Your task to perform on an android device: turn off location history Image 0: 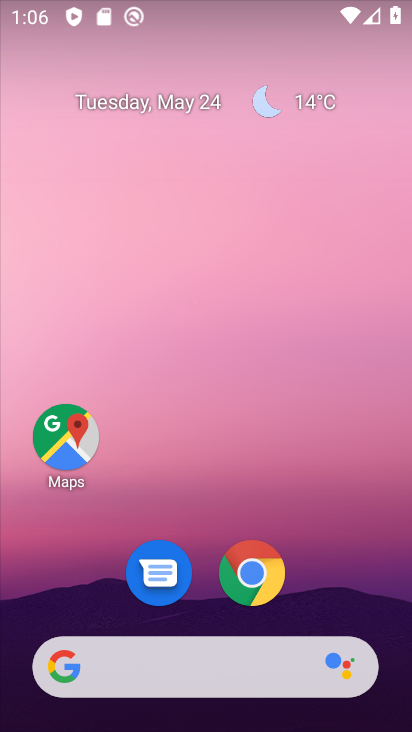
Step 0: drag from (376, 584) to (351, 0)
Your task to perform on an android device: turn off location history Image 1: 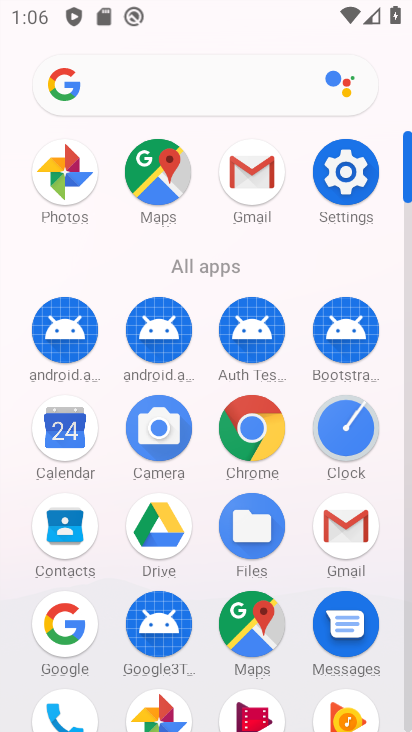
Step 1: click (369, 165)
Your task to perform on an android device: turn off location history Image 2: 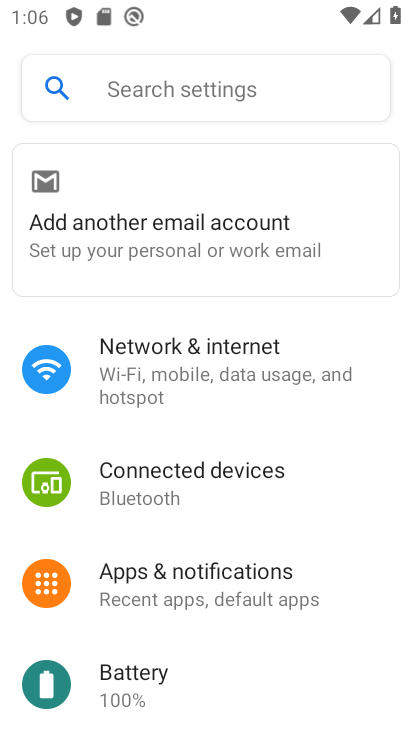
Step 2: drag from (226, 591) to (244, 186)
Your task to perform on an android device: turn off location history Image 3: 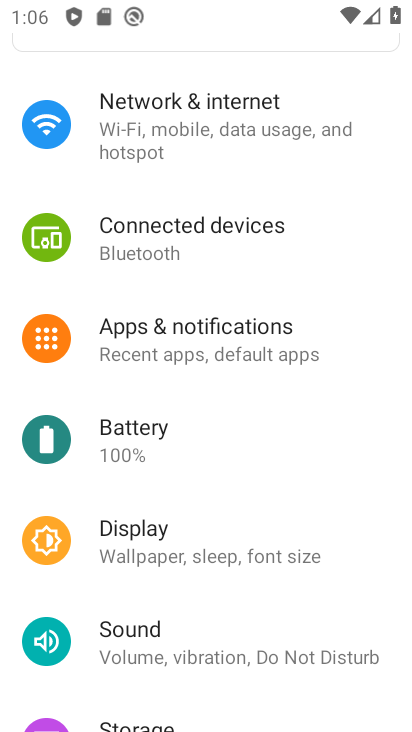
Step 3: drag from (223, 619) to (244, 37)
Your task to perform on an android device: turn off location history Image 4: 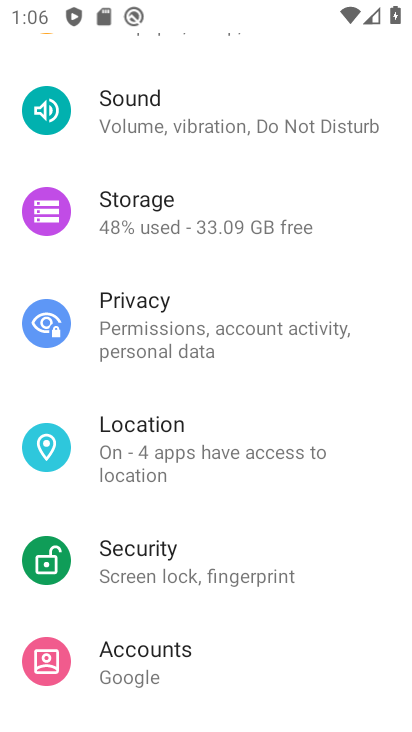
Step 4: click (205, 455)
Your task to perform on an android device: turn off location history Image 5: 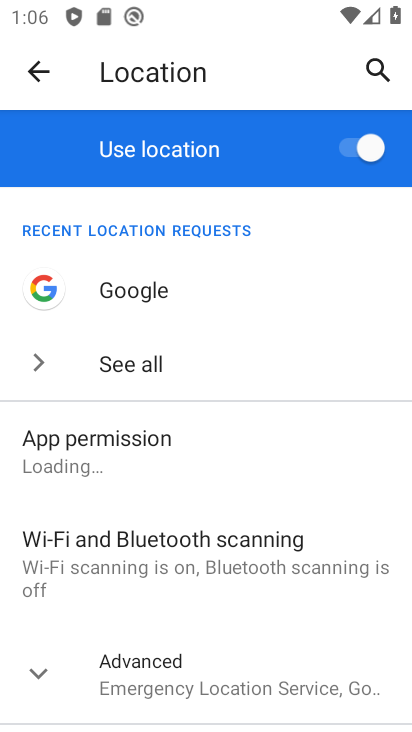
Step 5: drag from (219, 653) to (191, 150)
Your task to perform on an android device: turn off location history Image 6: 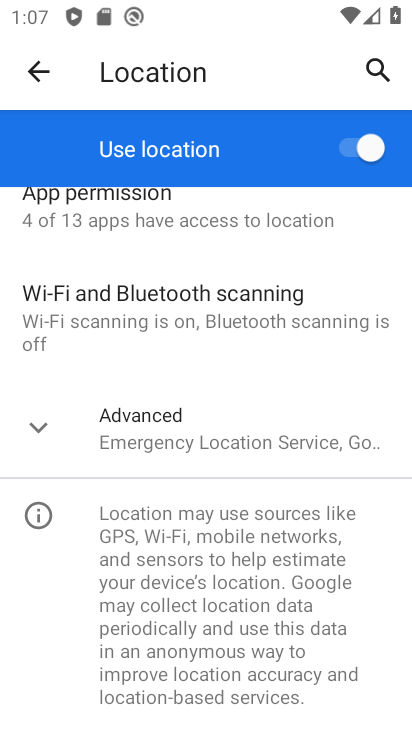
Step 6: drag from (285, 302) to (300, 623)
Your task to perform on an android device: turn off location history Image 7: 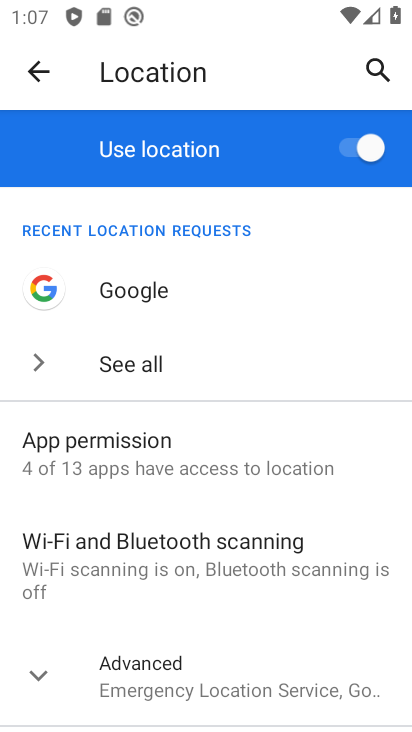
Step 7: click (183, 677)
Your task to perform on an android device: turn off location history Image 8: 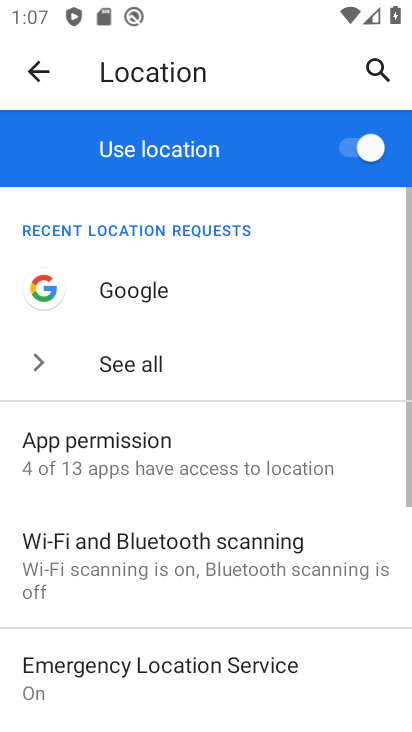
Step 8: drag from (245, 638) to (249, 237)
Your task to perform on an android device: turn off location history Image 9: 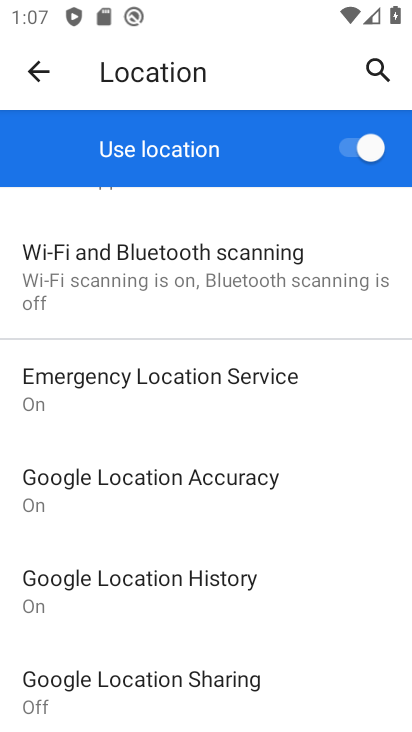
Step 9: click (182, 576)
Your task to perform on an android device: turn off location history Image 10: 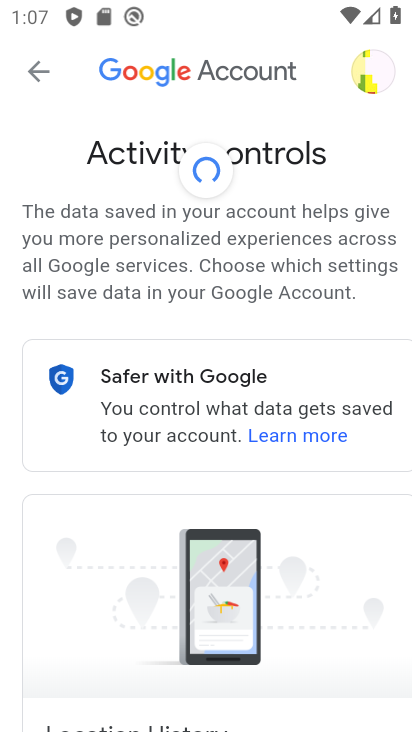
Step 10: drag from (201, 615) to (280, 80)
Your task to perform on an android device: turn off location history Image 11: 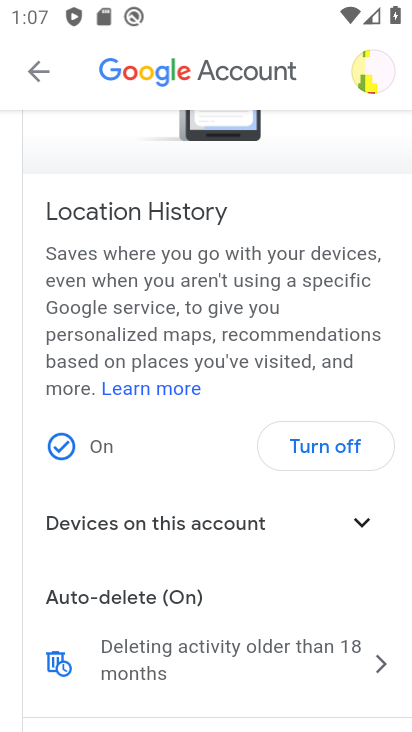
Step 11: click (334, 443)
Your task to perform on an android device: turn off location history Image 12: 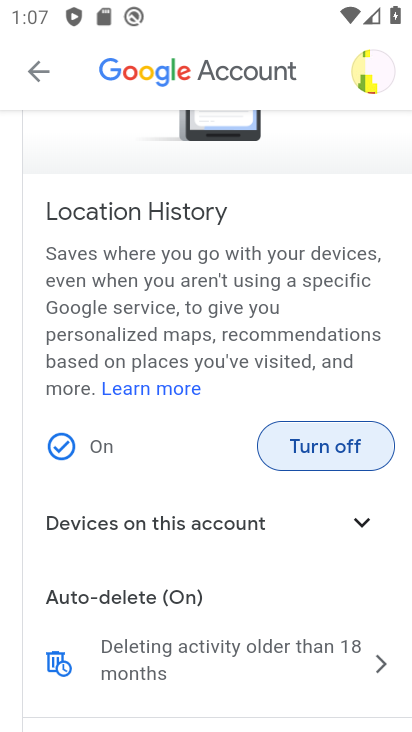
Step 12: drag from (264, 601) to (276, 138)
Your task to perform on an android device: turn off location history Image 13: 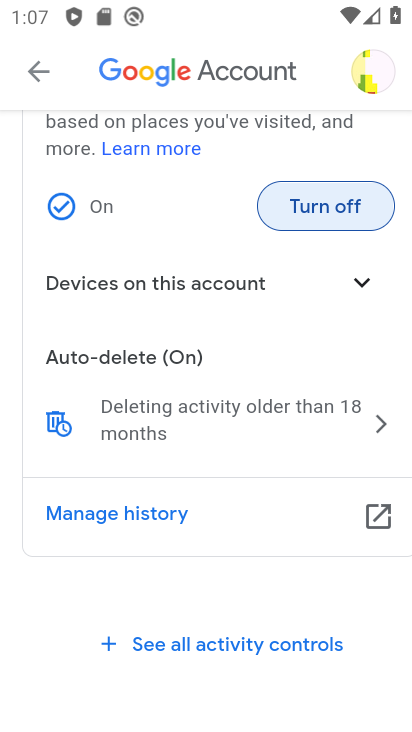
Step 13: drag from (281, 368) to (293, 630)
Your task to perform on an android device: turn off location history Image 14: 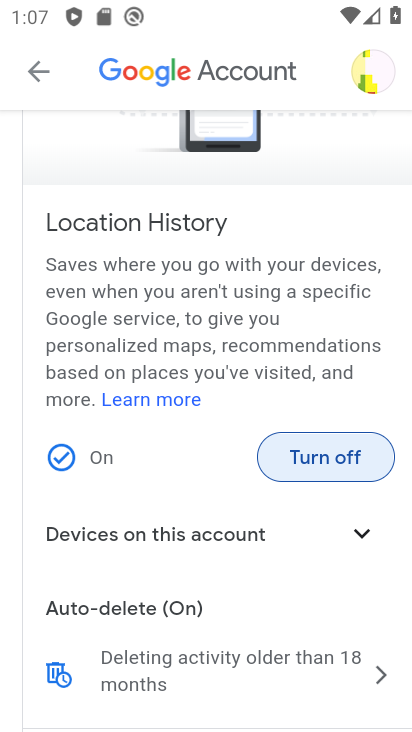
Step 14: click (311, 460)
Your task to perform on an android device: turn off location history Image 15: 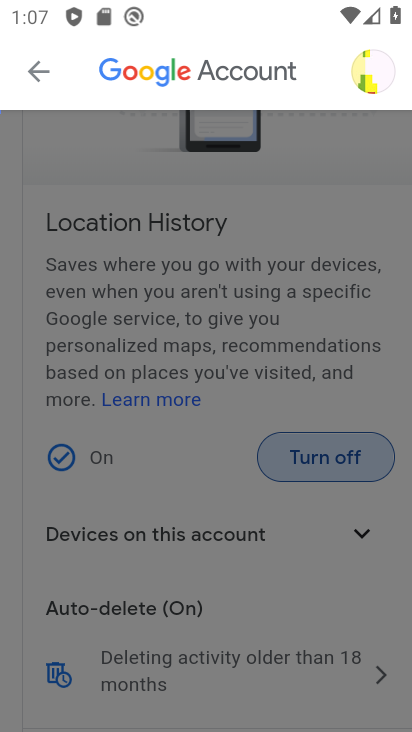
Step 15: click (311, 460)
Your task to perform on an android device: turn off location history Image 16: 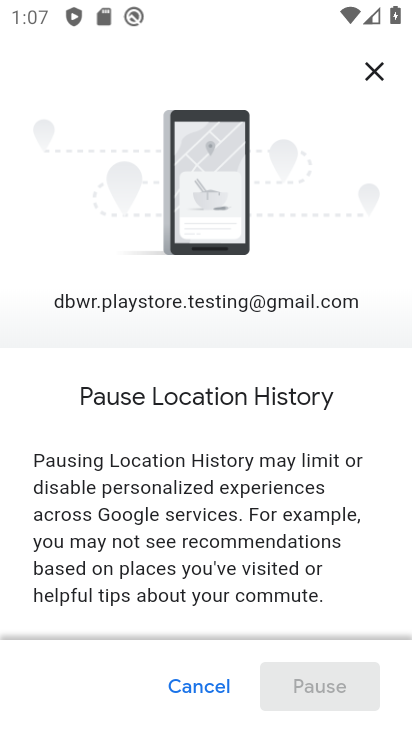
Step 16: drag from (217, 566) to (230, 25)
Your task to perform on an android device: turn off location history Image 17: 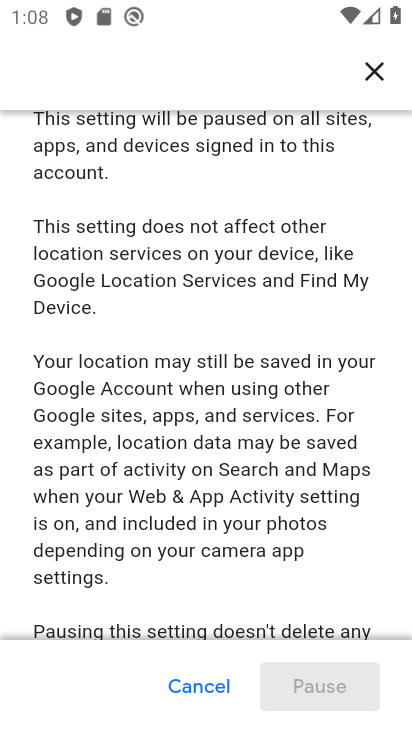
Step 17: drag from (285, 619) to (285, 1)
Your task to perform on an android device: turn off location history Image 18: 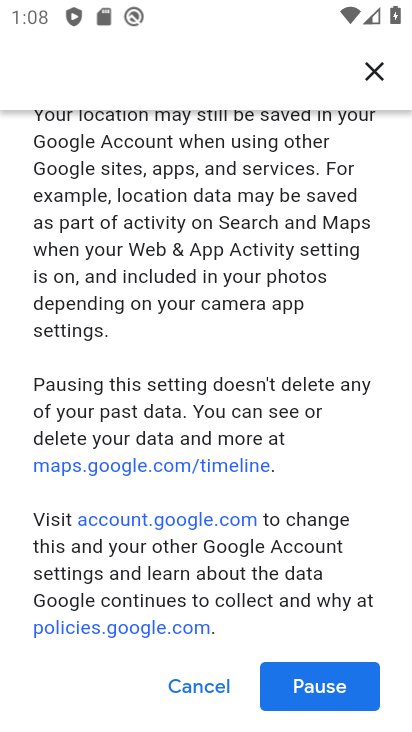
Step 18: click (320, 685)
Your task to perform on an android device: turn off location history Image 19: 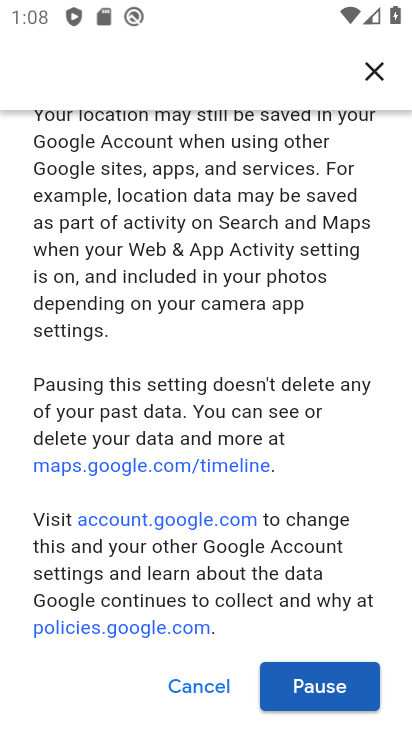
Step 19: click (322, 693)
Your task to perform on an android device: turn off location history Image 20: 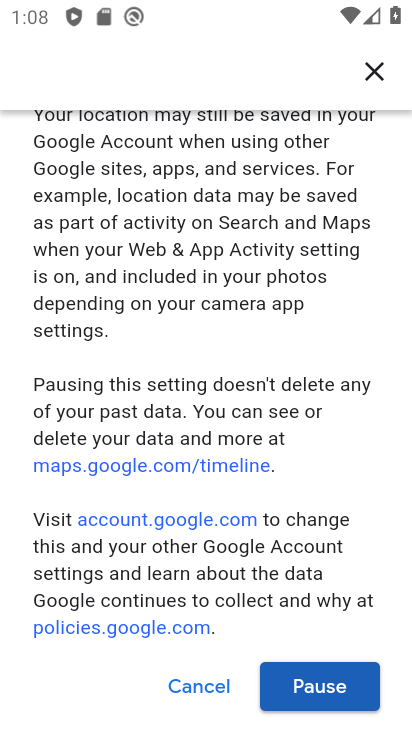
Step 20: click (315, 676)
Your task to perform on an android device: turn off location history Image 21: 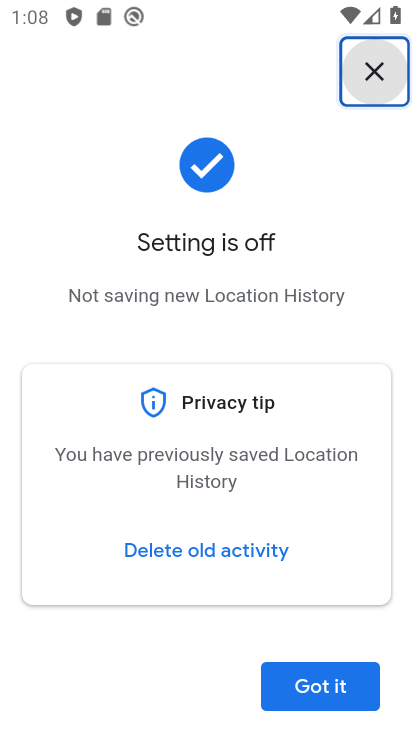
Step 21: task complete